Your task to perform on an android device: Is it going to rain today? Image 0: 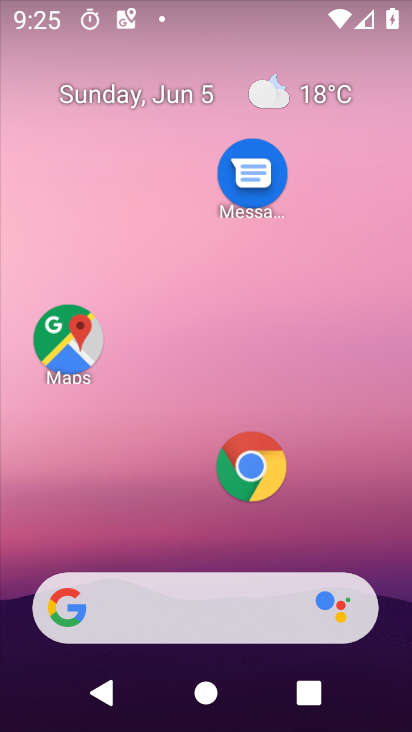
Step 0: drag from (195, 519) to (185, 19)
Your task to perform on an android device: Is it going to rain today? Image 1: 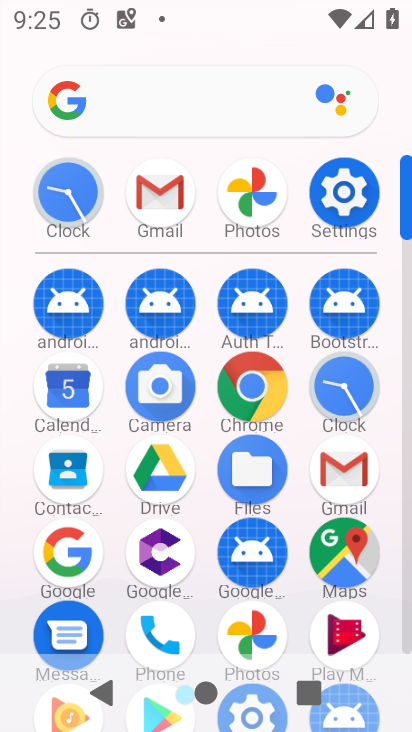
Step 1: click (165, 77)
Your task to perform on an android device: Is it going to rain today? Image 2: 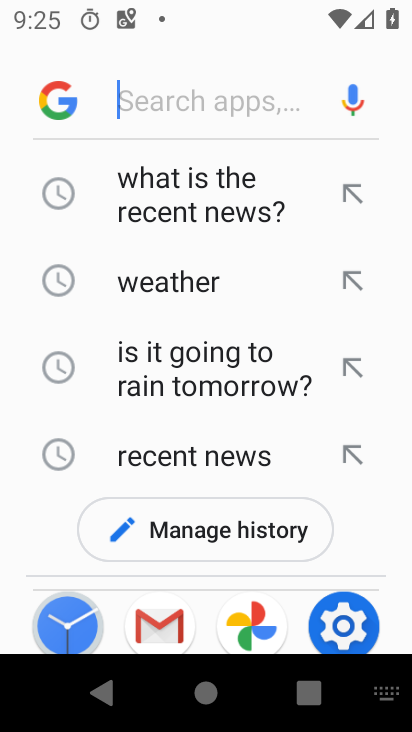
Step 2: type " rain today?"
Your task to perform on an android device: Is it going to rain today? Image 3: 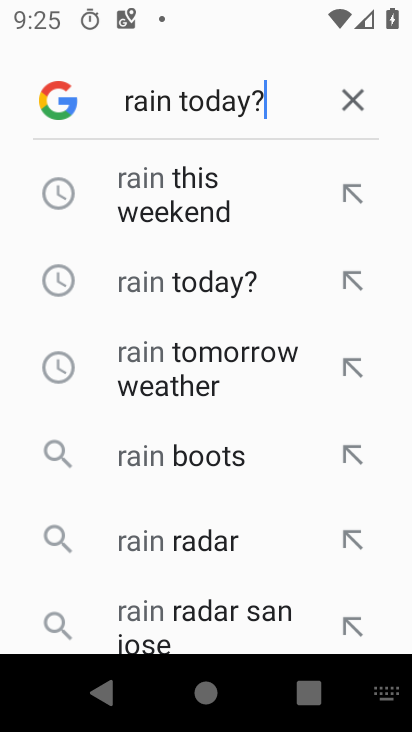
Step 3: type ""
Your task to perform on an android device: Is it going to rain today? Image 4: 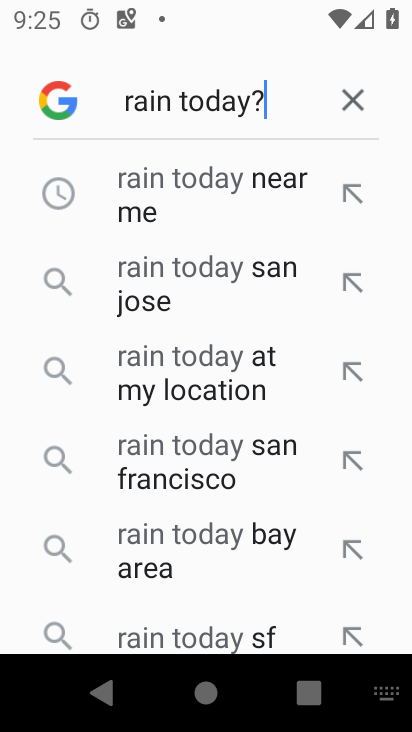
Step 4: click (176, 188)
Your task to perform on an android device: Is it going to rain today? Image 5: 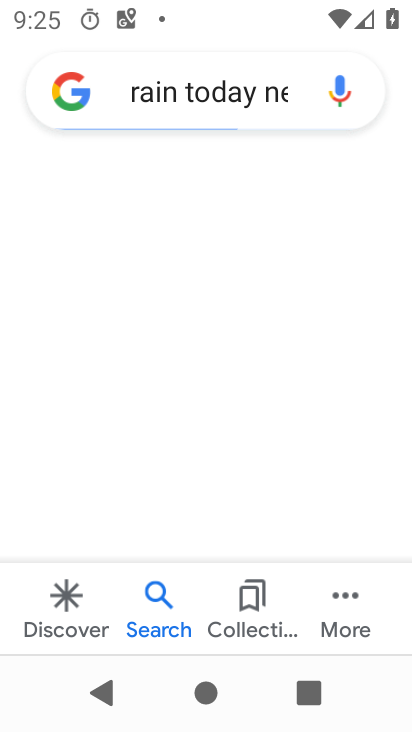
Step 5: task complete